Your task to perform on an android device: turn on showing notifications on the lock screen Image 0: 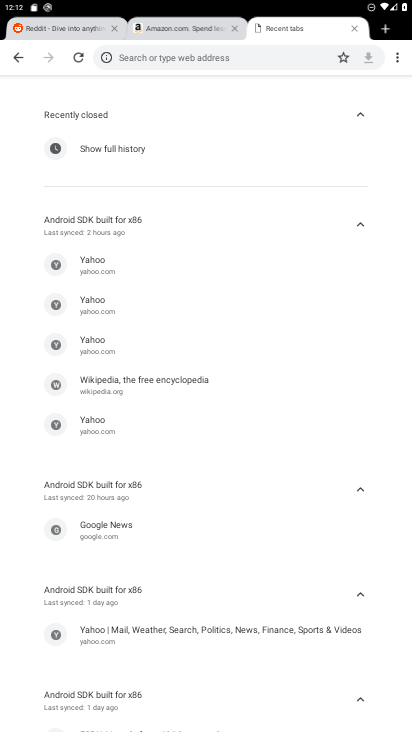
Step 0: press home button
Your task to perform on an android device: turn on showing notifications on the lock screen Image 1: 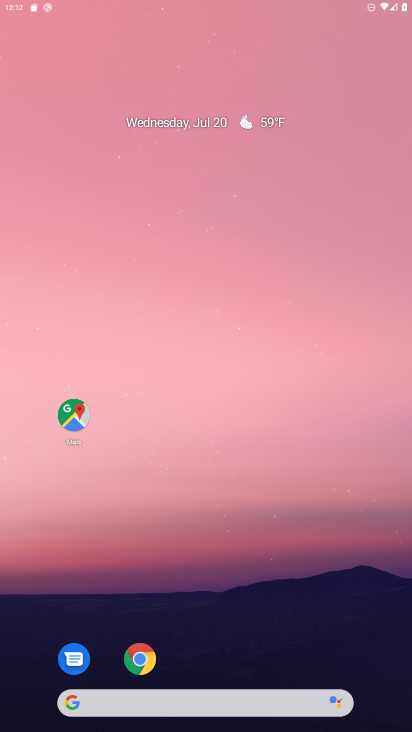
Step 1: drag from (252, 620) to (292, 108)
Your task to perform on an android device: turn on showing notifications on the lock screen Image 2: 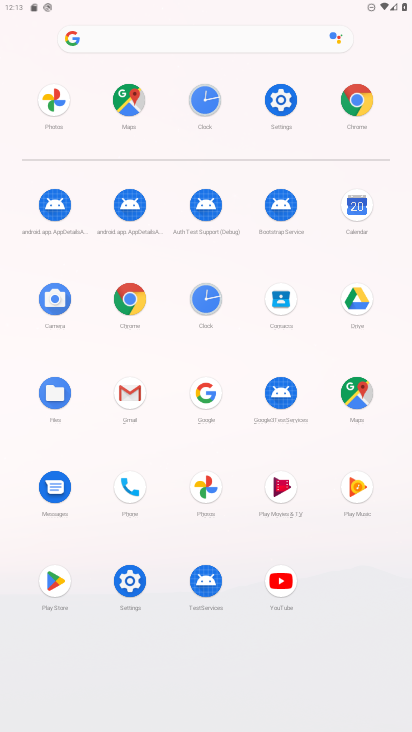
Step 2: click (279, 106)
Your task to perform on an android device: turn on showing notifications on the lock screen Image 3: 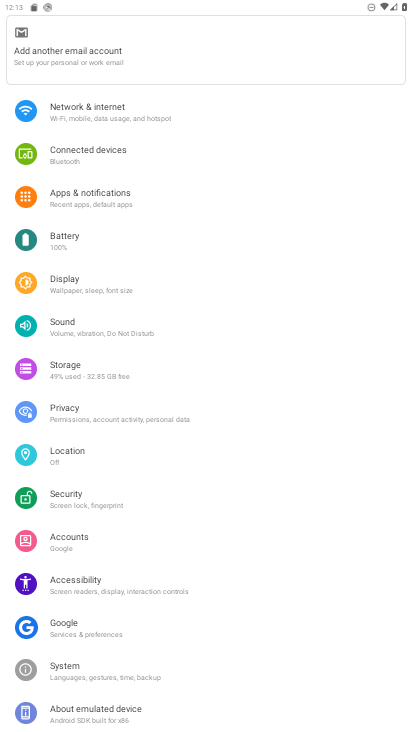
Step 3: click (103, 205)
Your task to perform on an android device: turn on showing notifications on the lock screen Image 4: 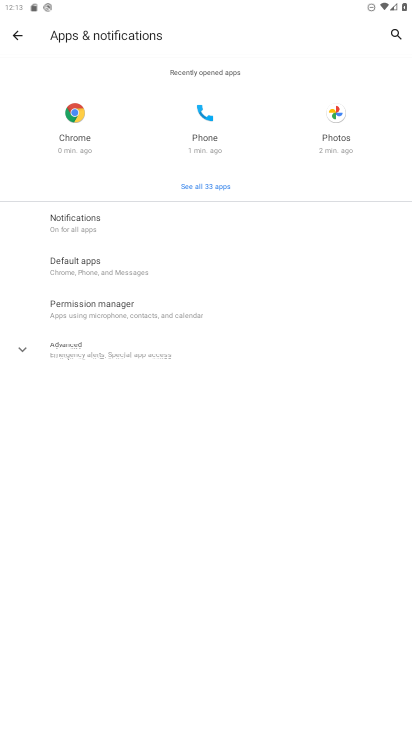
Step 4: click (97, 223)
Your task to perform on an android device: turn on showing notifications on the lock screen Image 5: 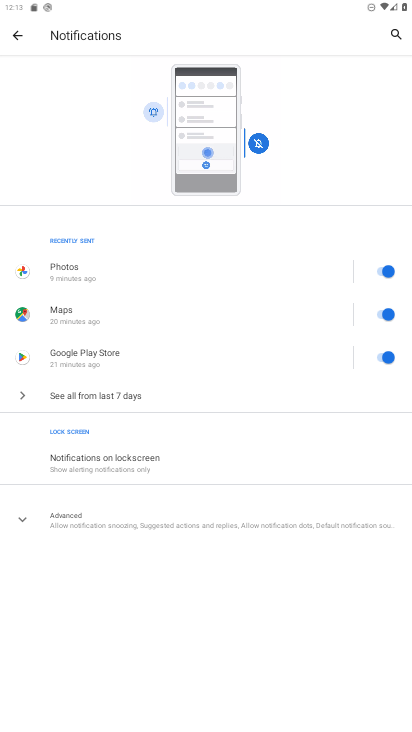
Step 5: click (127, 467)
Your task to perform on an android device: turn on showing notifications on the lock screen Image 6: 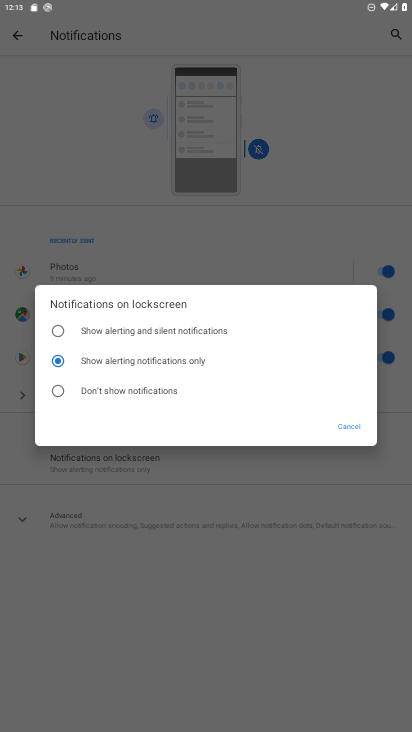
Step 6: task complete